Your task to perform on an android device: Play the last video I watched on Youtube Image 0: 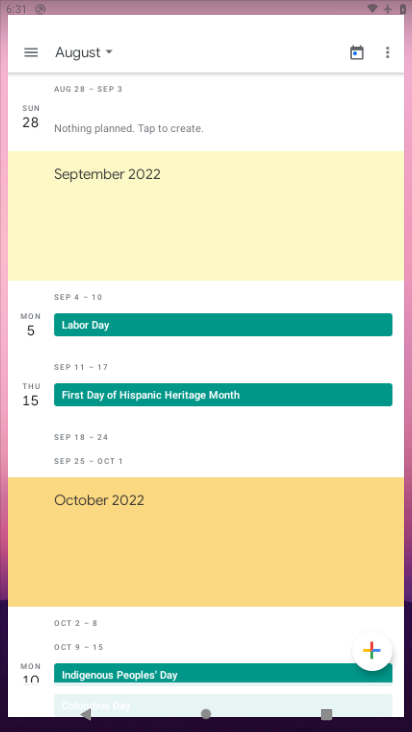
Step 0: press home button
Your task to perform on an android device: Play the last video I watched on Youtube Image 1: 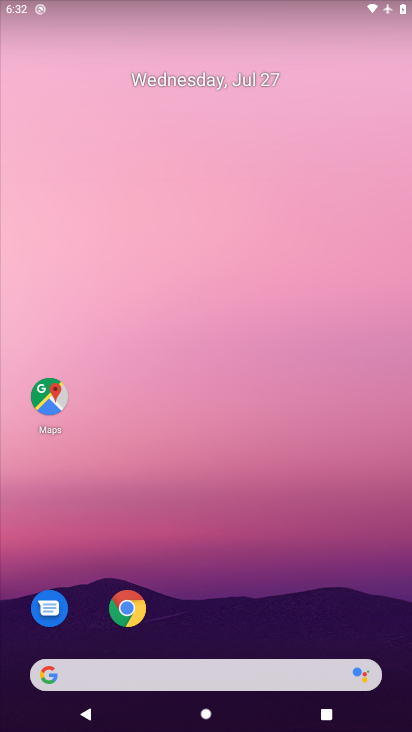
Step 1: drag from (228, 632) to (283, 4)
Your task to perform on an android device: Play the last video I watched on Youtube Image 2: 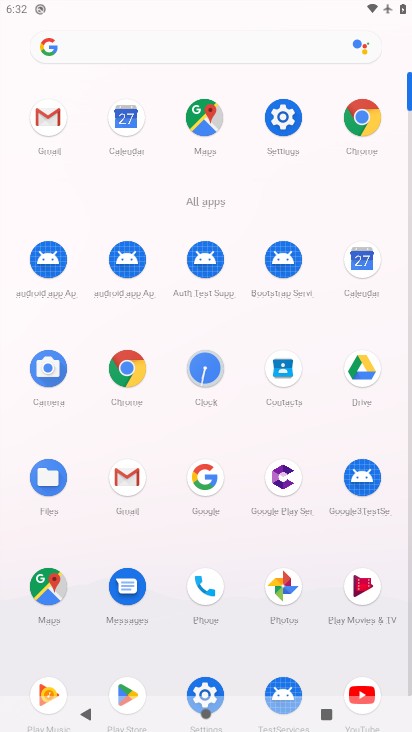
Step 2: click (362, 688)
Your task to perform on an android device: Play the last video I watched on Youtube Image 3: 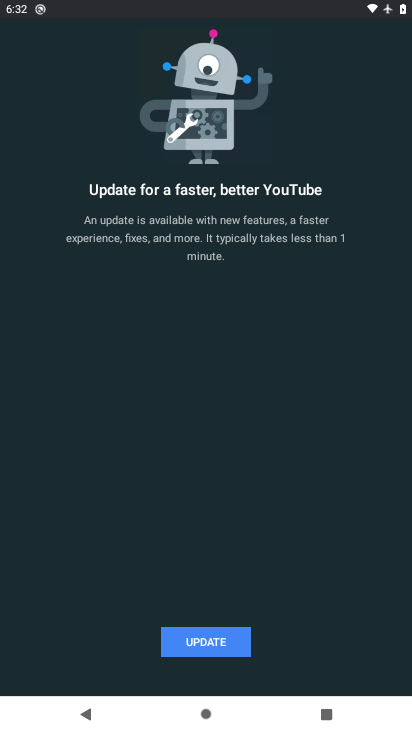
Step 3: click (208, 637)
Your task to perform on an android device: Play the last video I watched on Youtube Image 4: 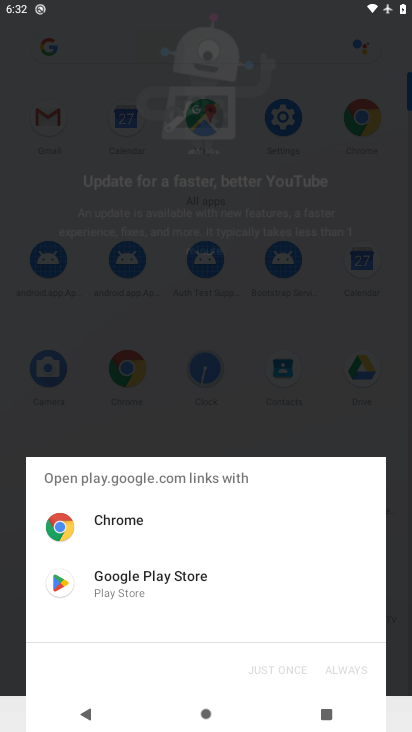
Step 4: click (208, 637)
Your task to perform on an android device: Play the last video I watched on Youtube Image 5: 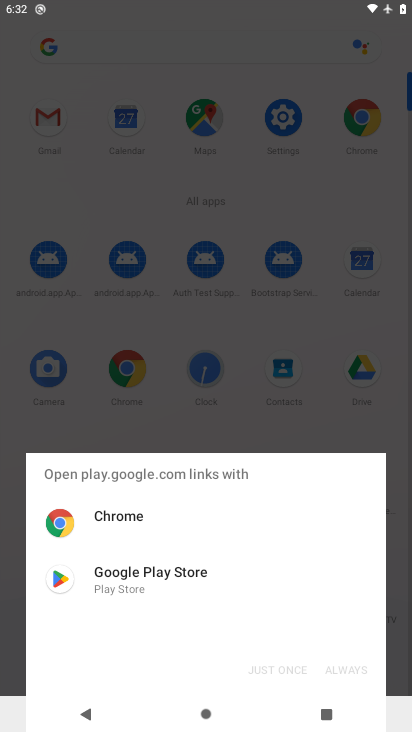
Step 5: click (139, 575)
Your task to perform on an android device: Play the last video I watched on Youtube Image 6: 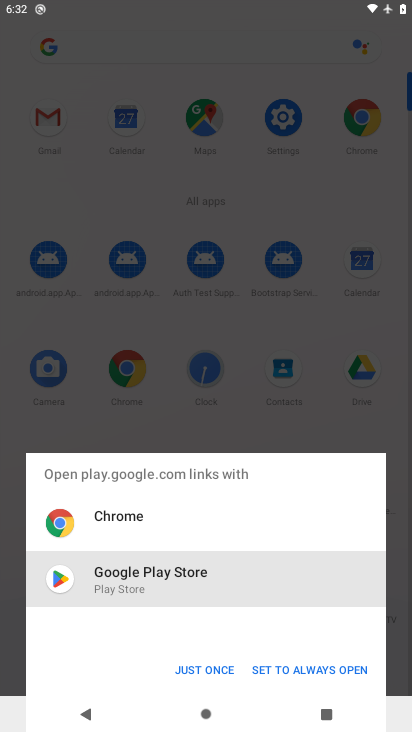
Step 6: click (198, 662)
Your task to perform on an android device: Play the last video I watched on Youtube Image 7: 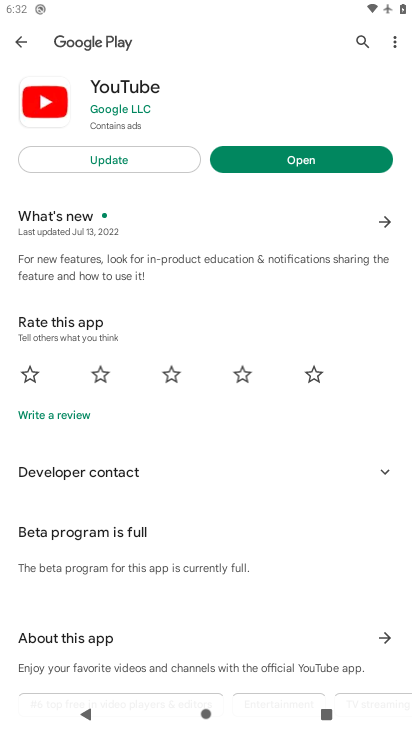
Step 7: click (141, 160)
Your task to perform on an android device: Play the last video I watched on Youtube Image 8: 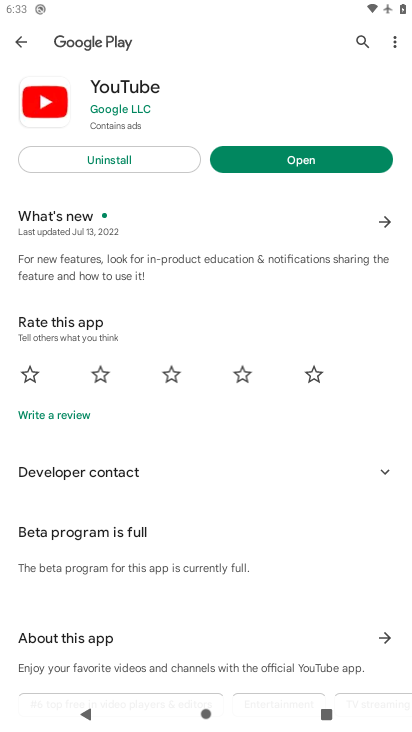
Step 8: click (242, 156)
Your task to perform on an android device: Play the last video I watched on Youtube Image 9: 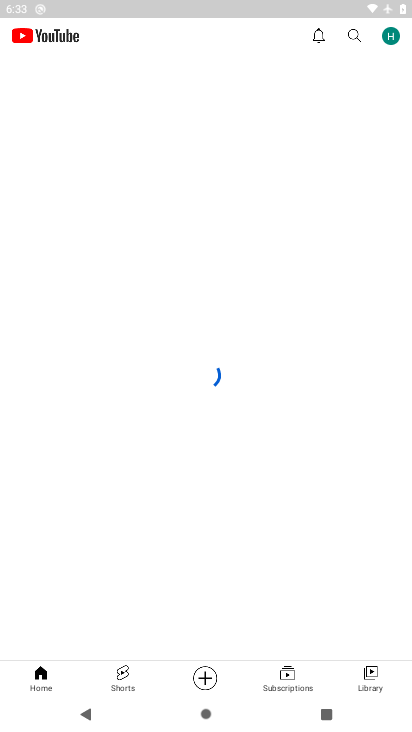
Step 9: click (353, 676)
Your task to perform on an android device: Play the last video I watched on Youtube Image 10: 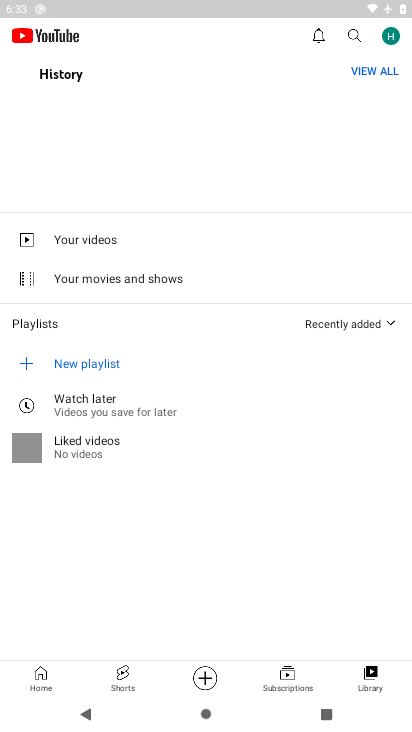
Step 10: click (370, 674)
Your task to perform on an android device: Play the last video I watched on Youtube Image 11: 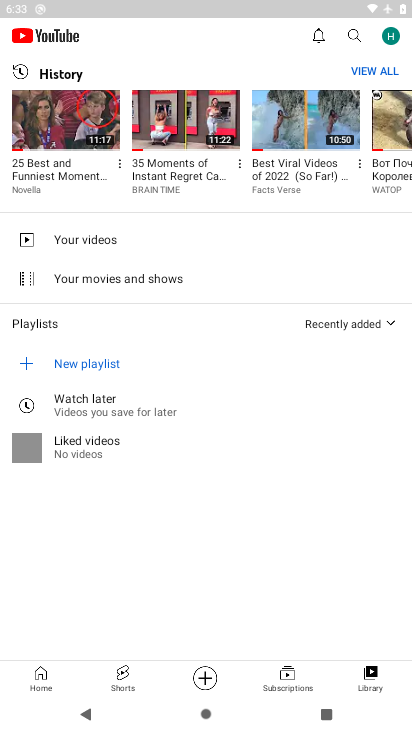
Step 11: click (65, 116)
Your task to perform on an android device: Play the last video I watched on Youtube Image 12: 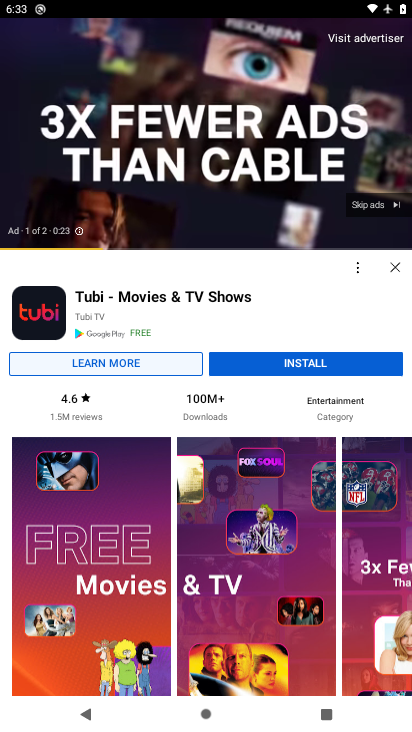
Step 12: click (359, 205)
Your task to perform on an android device: Play the last video I watched on Youtube Image 13: 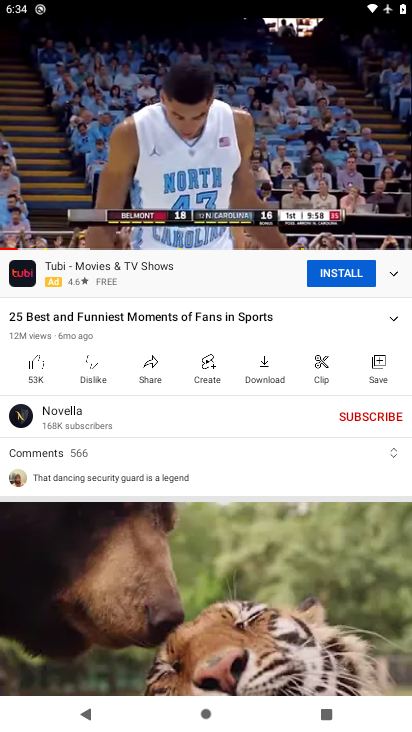
Step 13: task complete